Your task to perform on an android device: turn on location history Image 0: 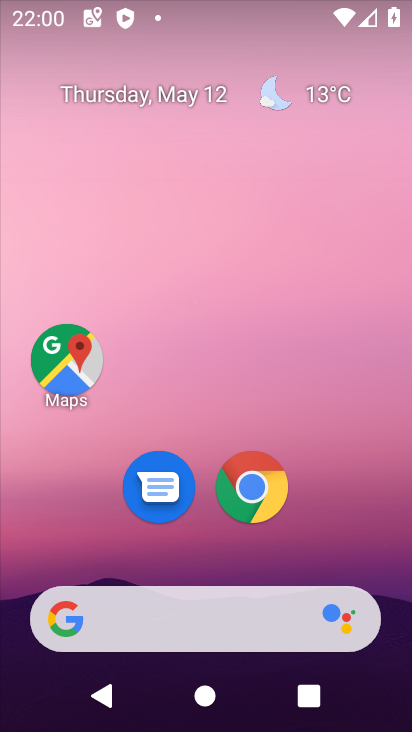
Step 0: drag from (200, 545) to (258, 191)
Your task to perform on an android device: turn on location history Image 1: 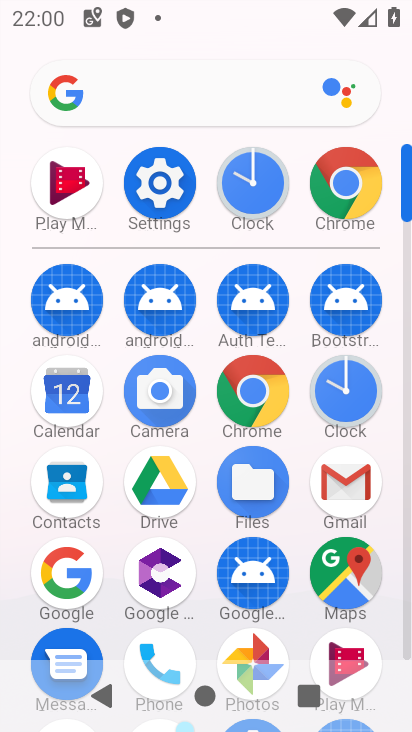
Step 1: click (169, 188)
Your task to perform on an android device: turn on location history Image 2: 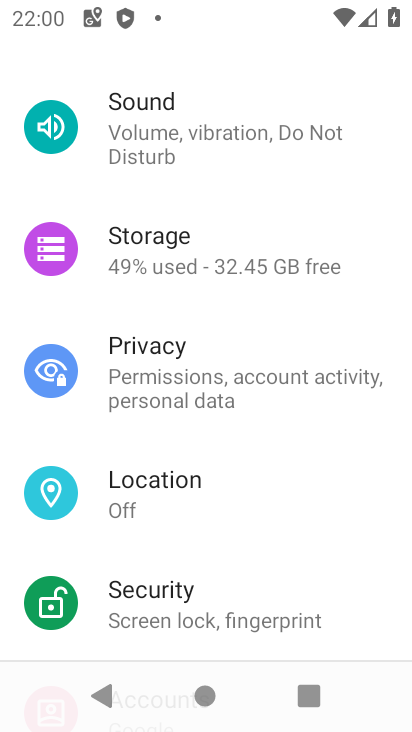
Step 2: click (152, 515)
Your task to perform on an android device: turn on location history Image 3: 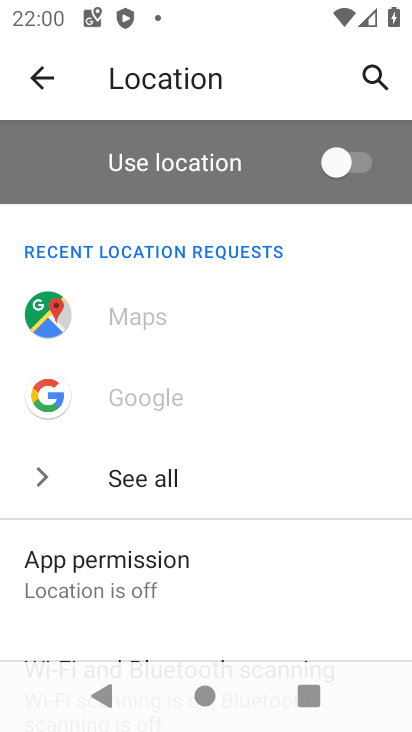
Step 3: drag from (141, 589) to (256, 115)
Your task to perform on an android device: turn on location history Image 4: 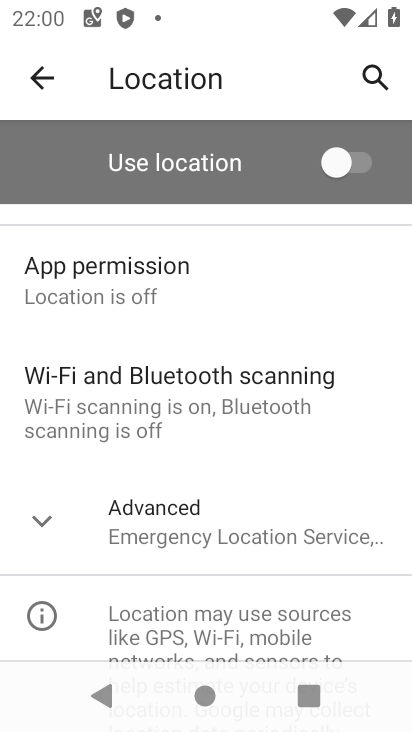
Step 4: click (179, 527)
Your task to perform on an android device: turn on location history Image 5: 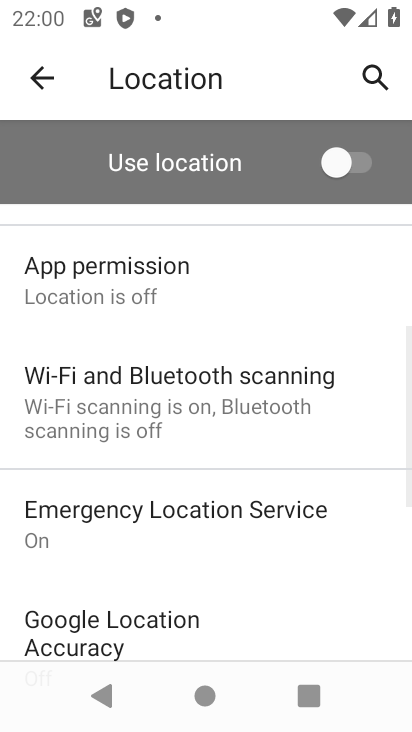
Step 5: drag from (179, 597) to (212, 182)
Your task to perform on an android device: turn on location history Image 6: 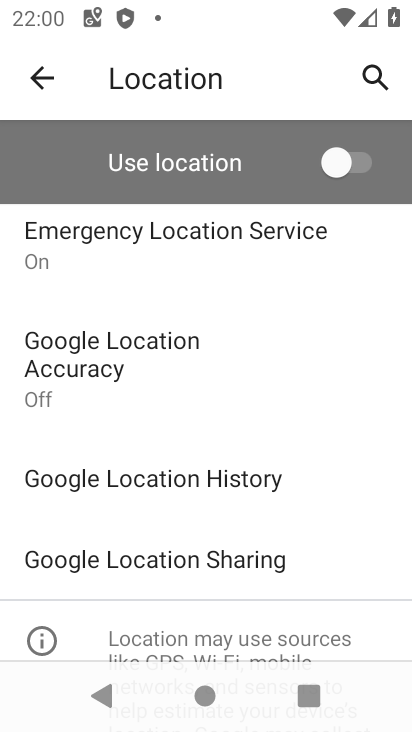
Step 6: click (181, 496)
Your task to perform on an android device: turn on location history Image 7: 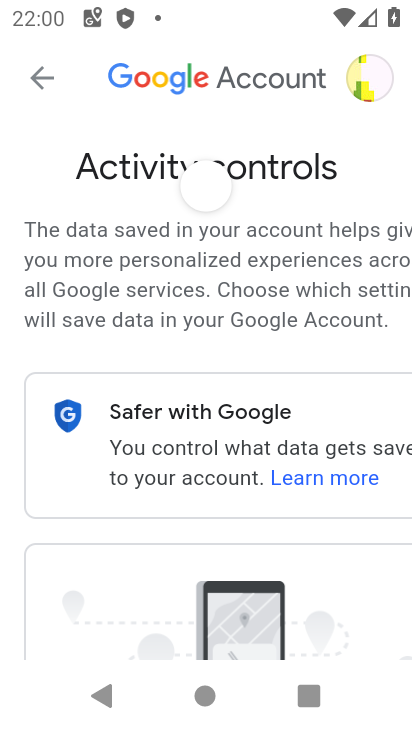
Step 7: drag from (156, 584) to (220, 45)
Your task to perform on an android device: turn on location history Image 8: 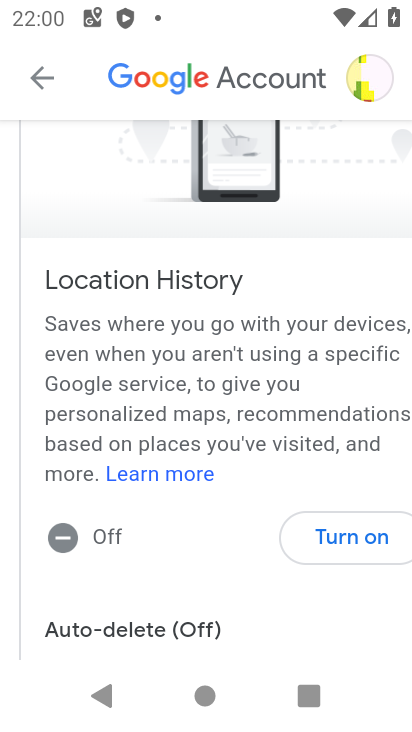
Step 8: click (333, 528)
Your task to perform on an android device: turn on location history Image 9: 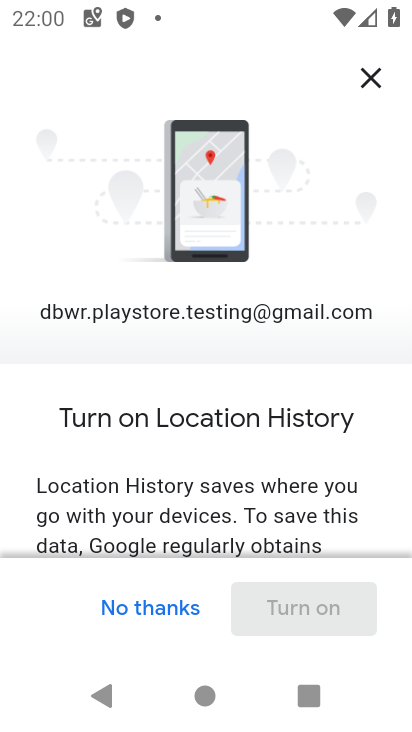
Step 9: drag from (257, 522) to (298, 92)
Your task to perform on an android device: turn on location history Image 10: 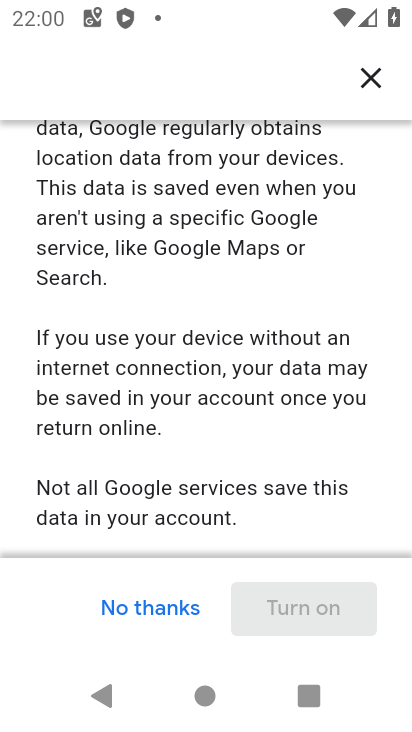
Step 10: drag from (173, 450) to (212, 100)
Your task to perform on an android device: turn on location history Image 11: 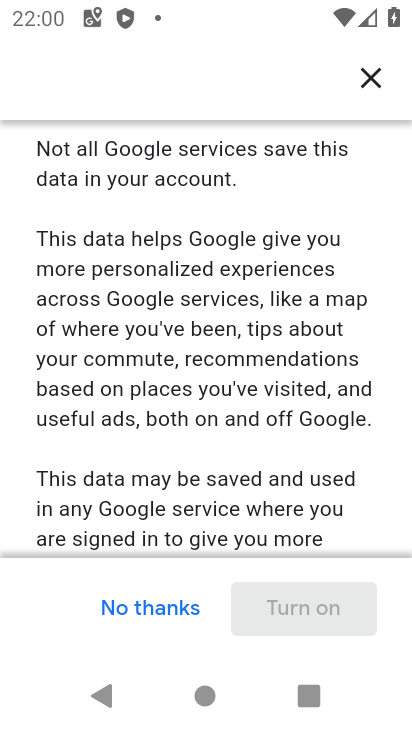
Step 11: drag from (203, 503) to (193, 186)
Your task to perform on an android device: turn on location history Image 12: 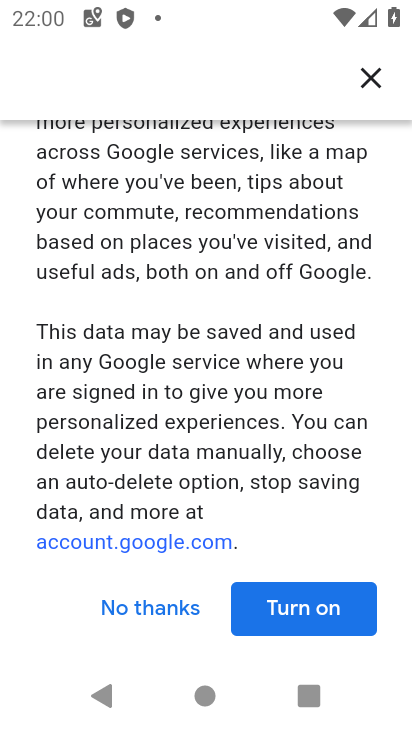
Step 12: click (306, 597)
Your task to perform on an android device: turn on location history Image 13: 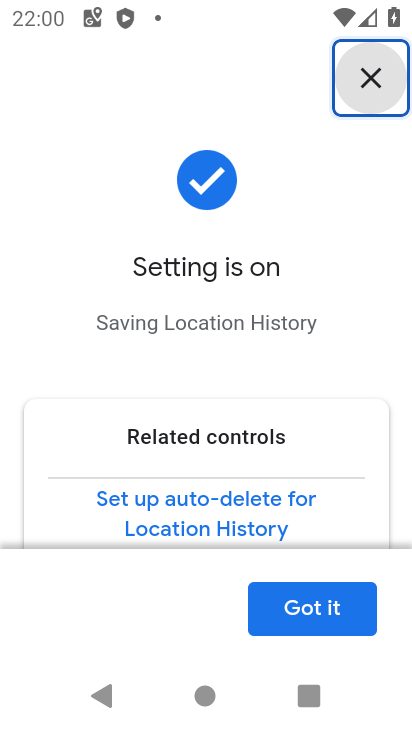
Step 13: click (323, 633)
Your task to perform on an android device: turn on location history Image 14: 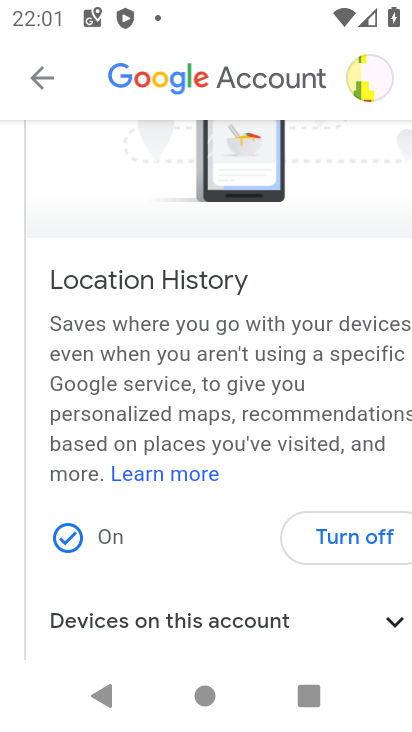
Step 14: task complete